Your task to perform on an android device: What is the capital of Norway? Image 0: 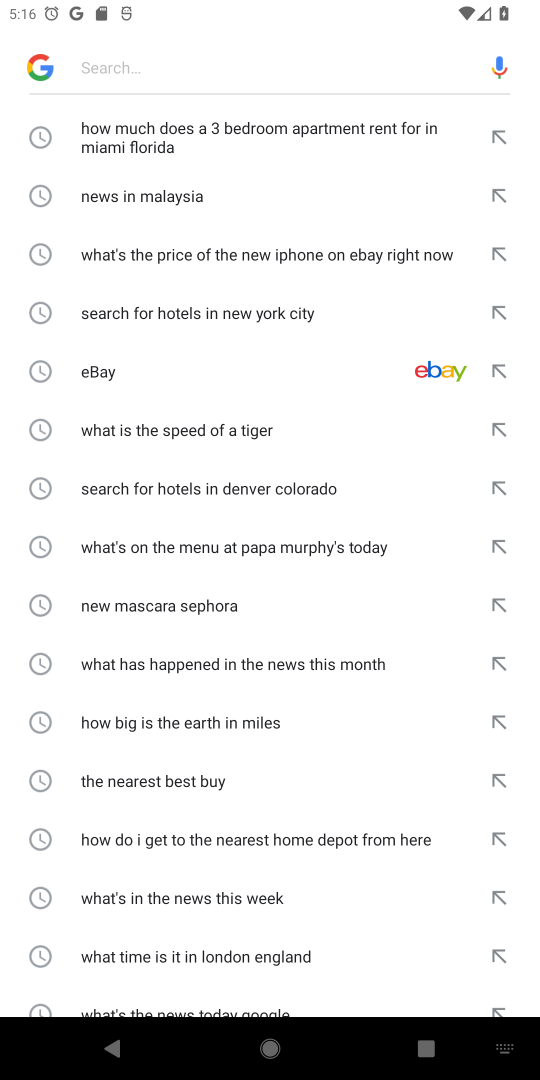
Step 0: type "What is the capital of Norway?"
Your task to perform on an android device: What is the capital of Norway? Image 1: 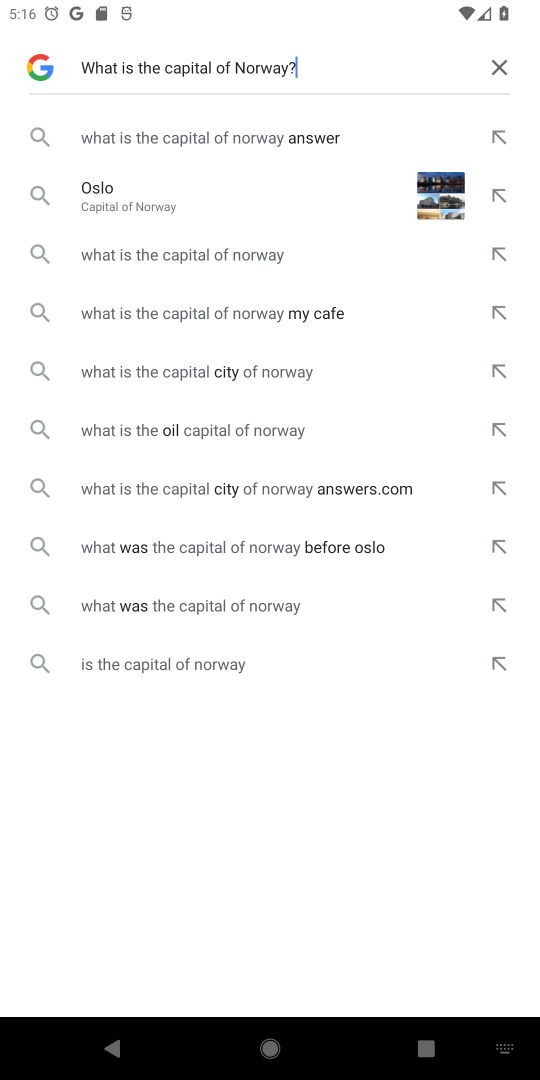
Step 1: click (342, 143)
Your task to perform on an android device: What is the capital of Norway? Image 2: 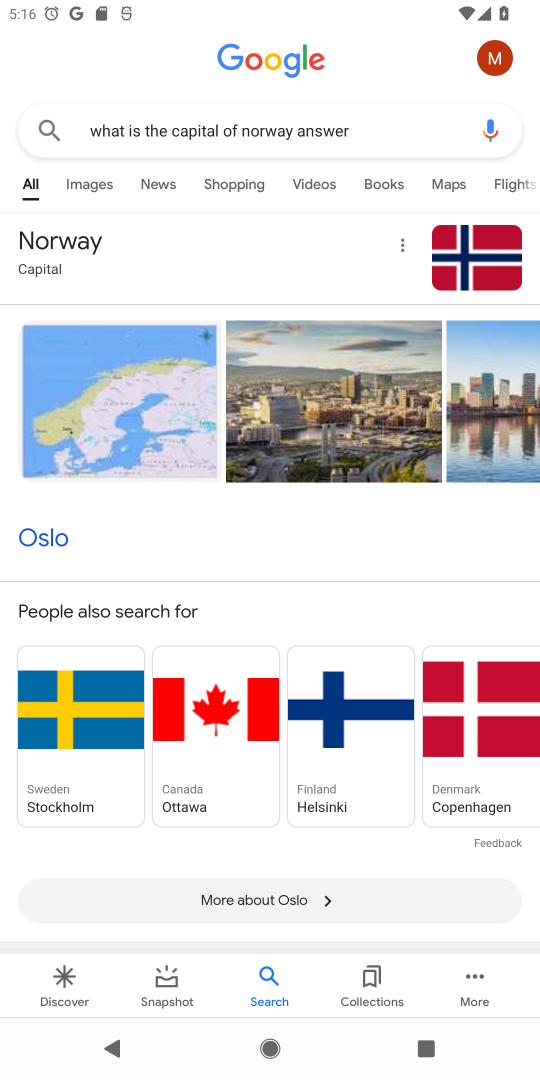
Step 2: task complete